Your task to perform on an android device: Open Google Maps Image 0: 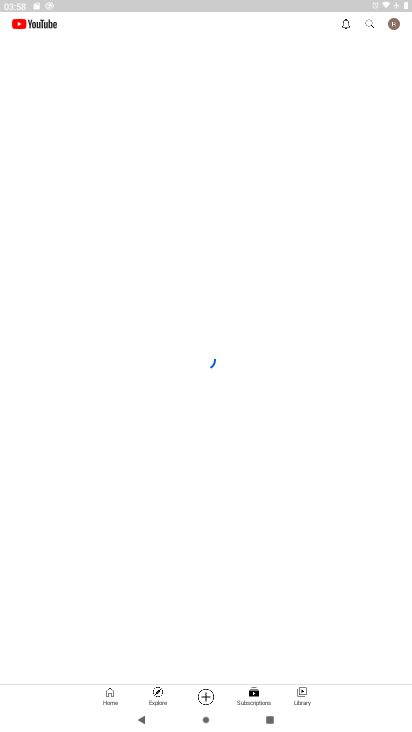
Step 0: press home button
Your task to perform on an android device: Open Google Maps Image 1: 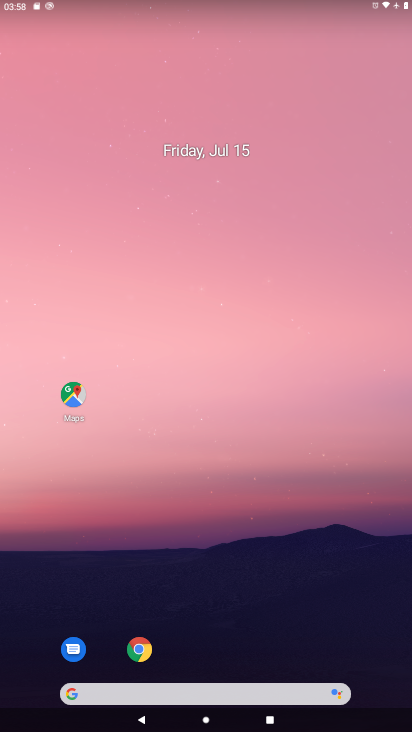
Step 1: click (73, 394)
Your task to perform on an android device: Open Google Maps Image 2: 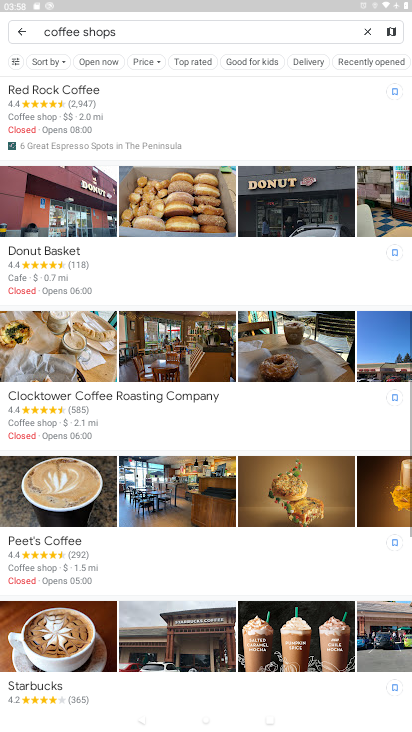
Step 2: click (366, 31)
Your task to perform on an android device: Open Google Maps Image 3: 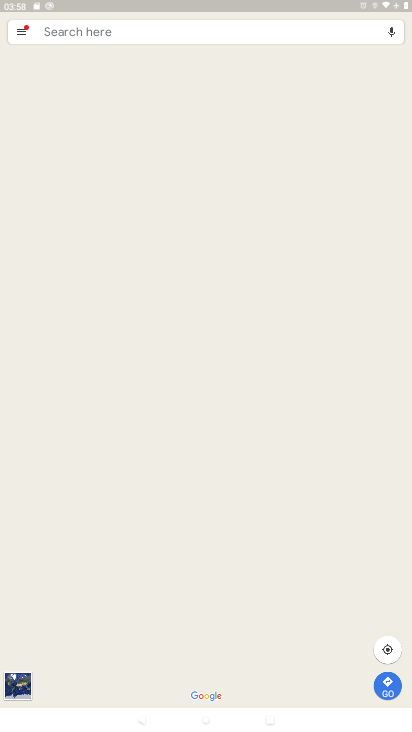
Step 3: task complete